Your task to perform on an android device: Open Google Chrome and click the shortcut for Amazon.com Image 0: 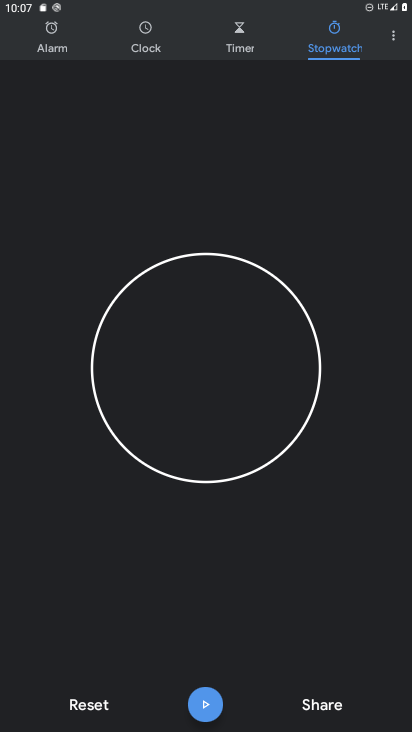
Step 0: press home button
Your task to perform on an android device: Open Google Chrome and click the shortcut for Amazon.com Image 1: 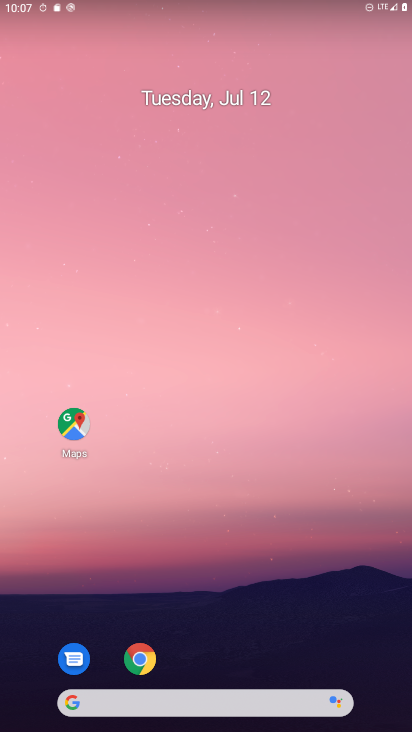
Step 1: drag from (395, 684) to (1, 93)
Your task to perform on an android device: Open Google Chrome and click the shortcut for Amazon.com Image 2: 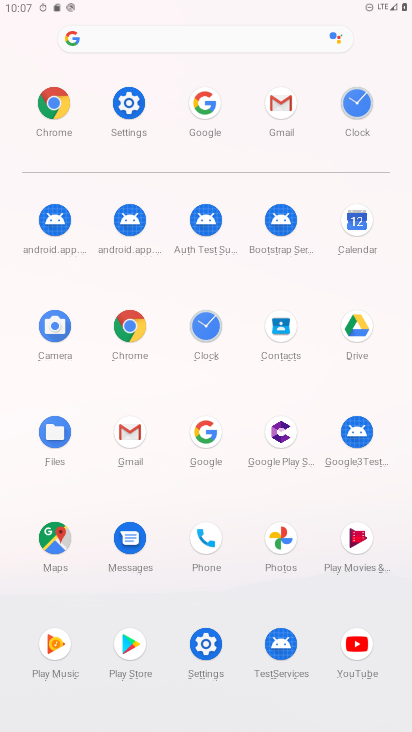
Step 2: click (127, 326)
Your task to perform on an android device: Open Google Chrome and click the shortcut for Amazon.com Image 3: 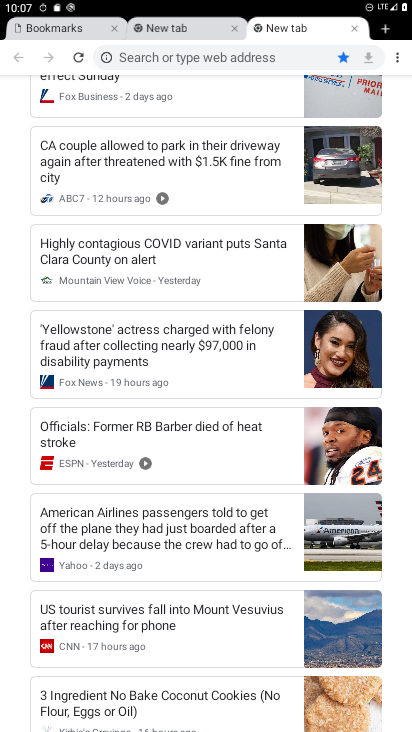
Step 3: drag from (187, 228) to (236, 711)
Your task to perform on an android device: Open Google Chrome and click the shortcut for Amazon.com Image 4: 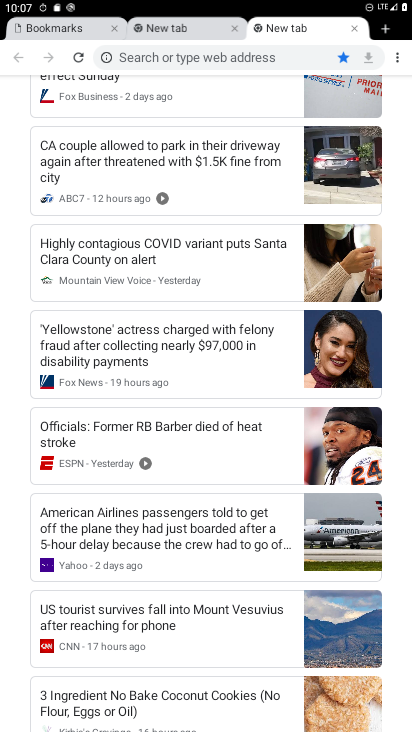
Step 4: drag from (208, 234) to (252, 608)
Your task to perform on an android device: Open Google Chrome and click the shortcut for Amazon.com Image 5: 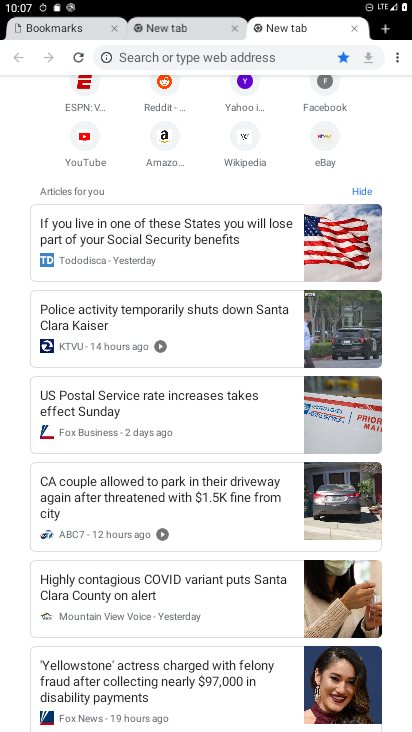
Step 5: click (169, 139)
Your task to perform on an android device: Open Google Chrome and click the shortcut for Amazon.com Image 6: 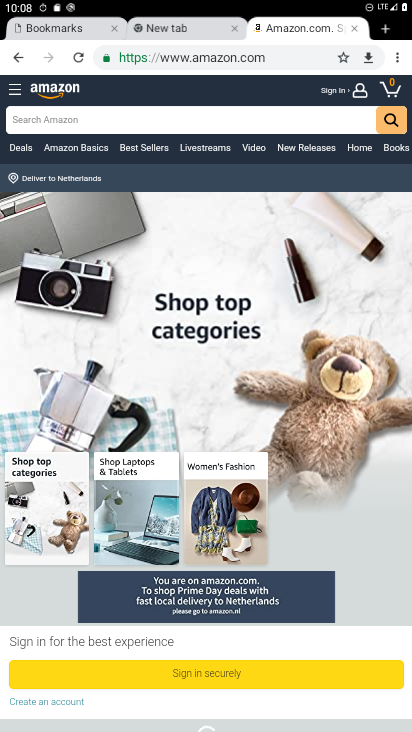
Step 6: task complete